Your task to perform on an android device: Is it going to rain today? Image 0: 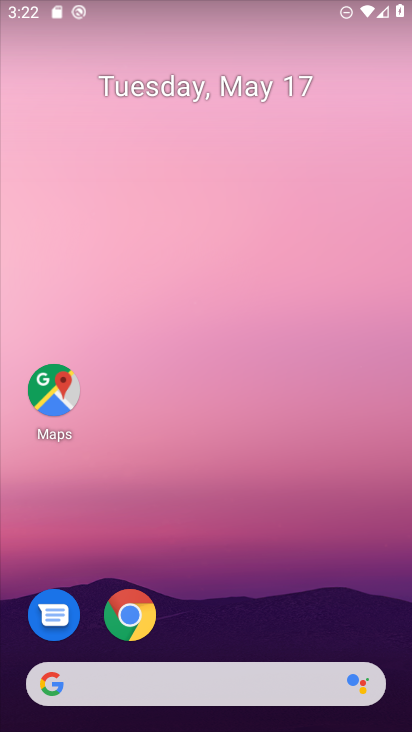
Step 0: drag from (202, 719) to (202, 218)
Your task to perform on an android device: Is it going to rain today? Image 1: 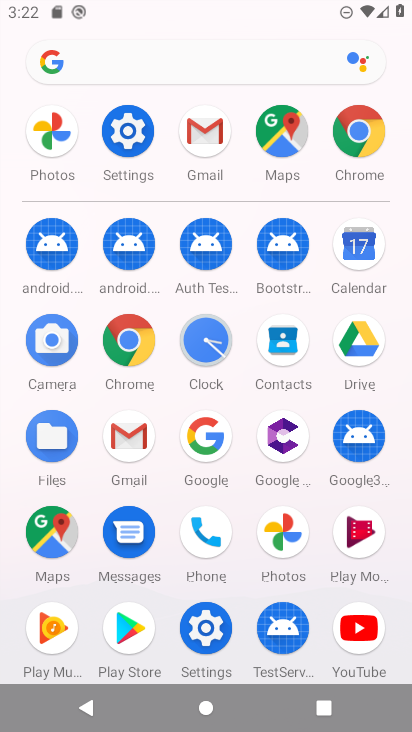
Step 1: click (208, 429)
Your task to perform on an android device: Is it going to rain today? Image 2: 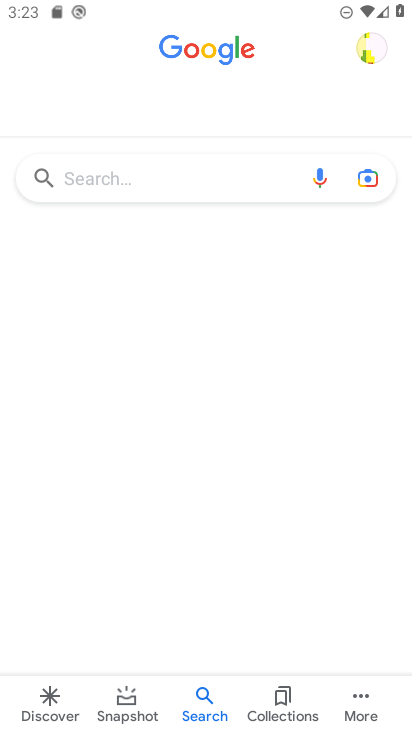
Step 2: drag from (190, 306) to (208, 414)
Your task to perform on an android device: Is it going to rain today? Image 3: 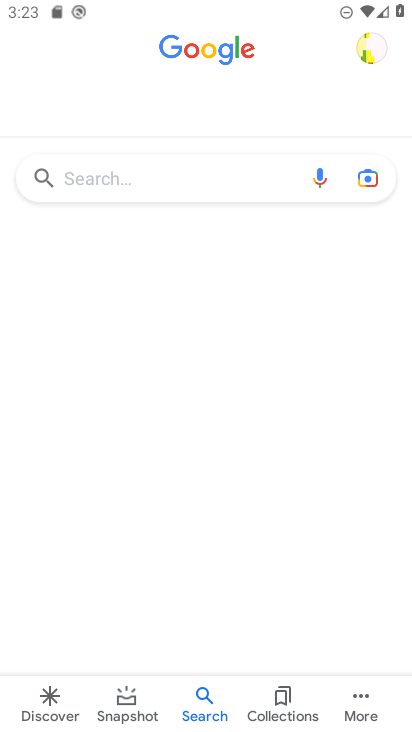
Step 3: click (176, 182)
Your task to perform on an android device: Is it going to rain today? Image 4: 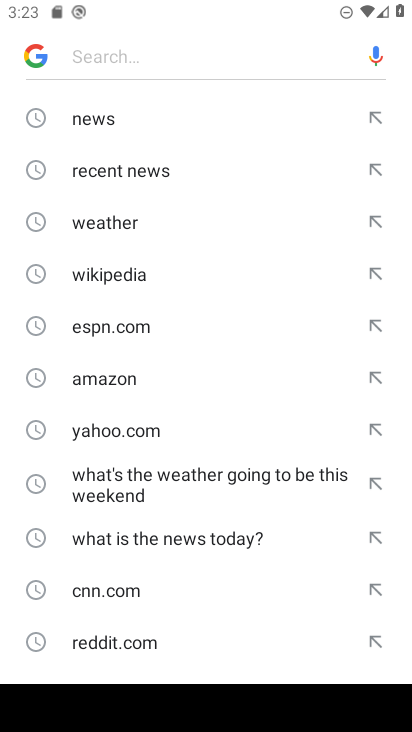
Step 4: click (111, 224)
Your task to perform on an android device: Is it going to rain today? Image 5: 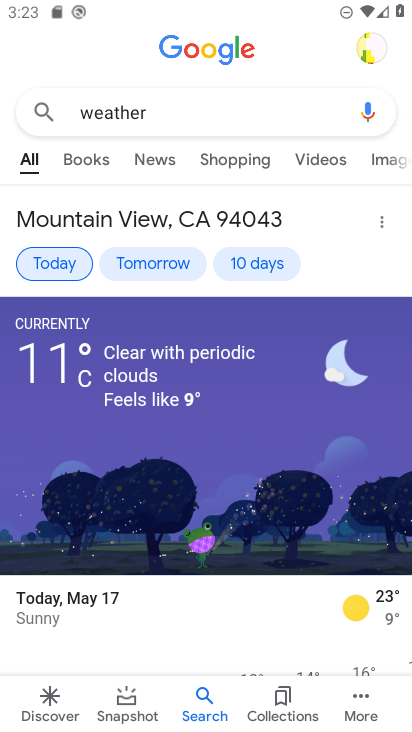
Step 5: task complete